Your task to perform on an android device: change text size in settings app Image 0: 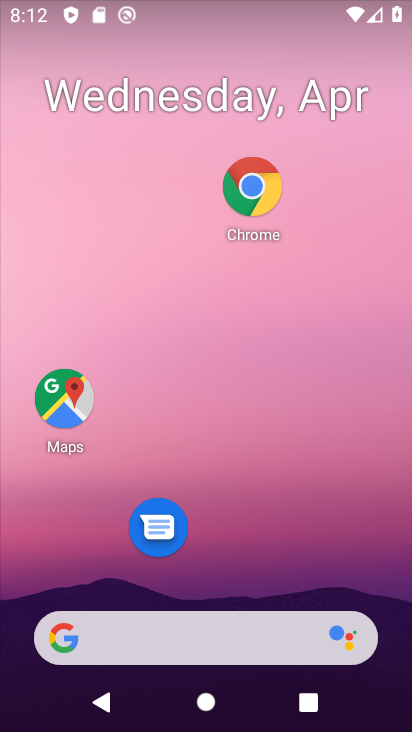
Step 0: drag from (247, 582) to (273, 278)
Your task to perform on an android device: change text size in settings app Image 1: 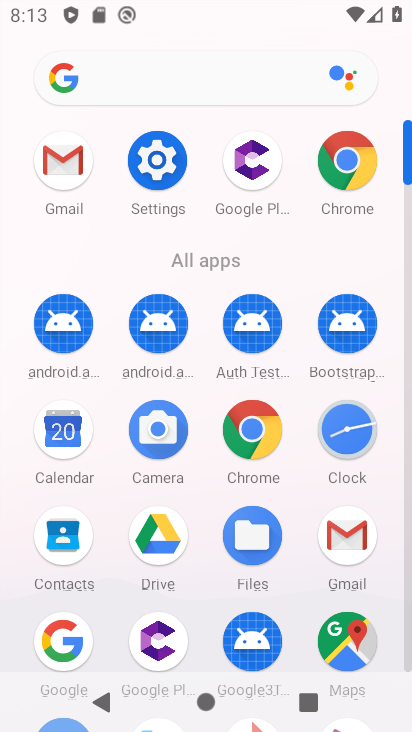
Step 1: click (169, 152)
Your task to perform on an android device: change text size in settings app Image 2: 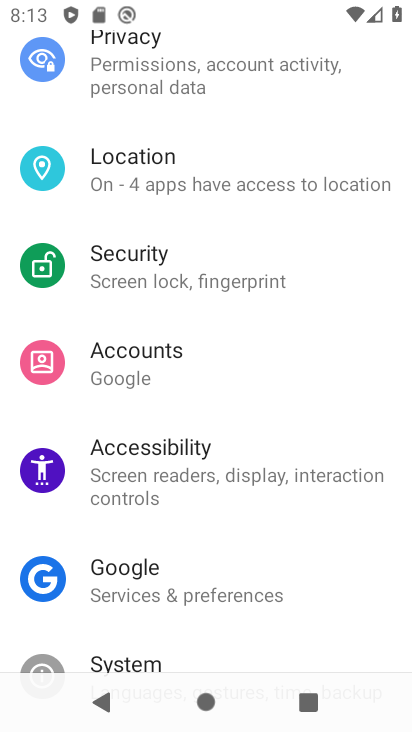
Step 2: drag from (160, 614) to (261, 180)
Your task to perform on an android device: change text size in settings app Image 3: 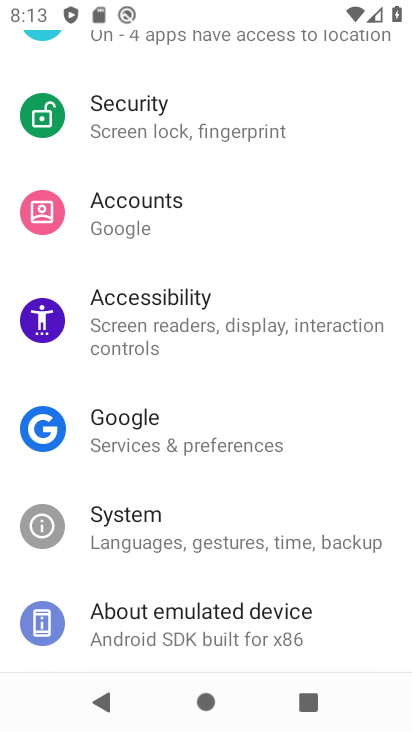
Step 3: click (187, 530)
Your task to perform on an android device: change text size in settings app Image 4: 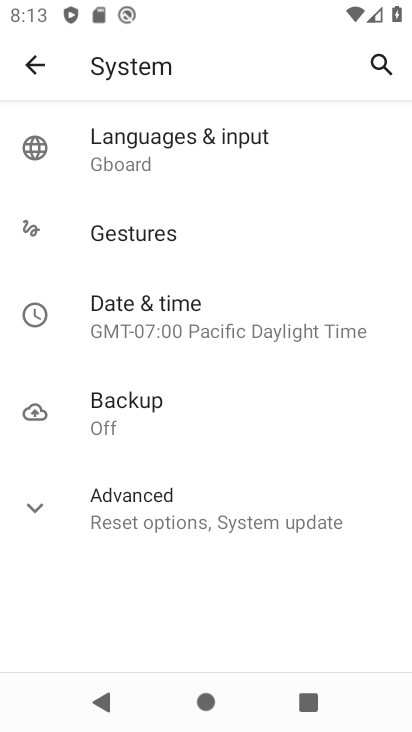
Step 4: press back button
Your task to perform on an android device: change text size in settings app Image 5: 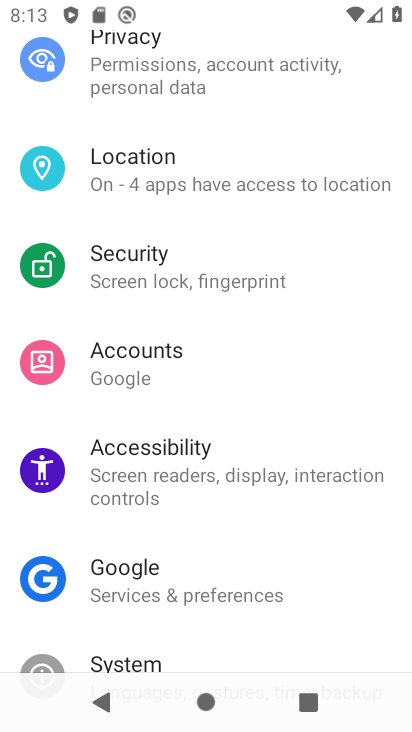
Step 5: click (178, 479)
Your task to perform on an android device: change text size in settings app Image 6: 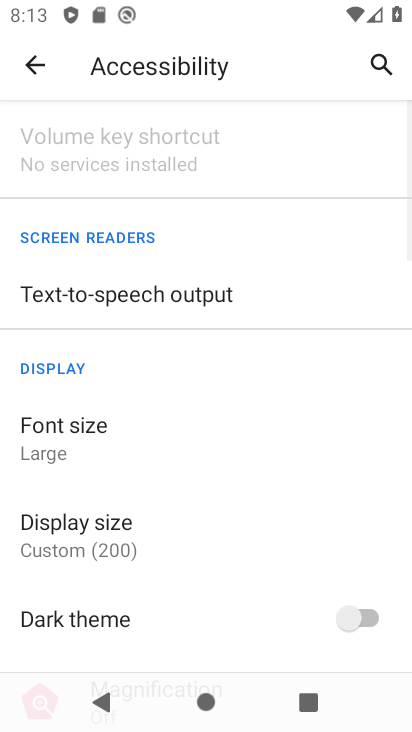
Step 6: click (158, 452)
Your task to perform on an android device: change text size in settings app Image 7: 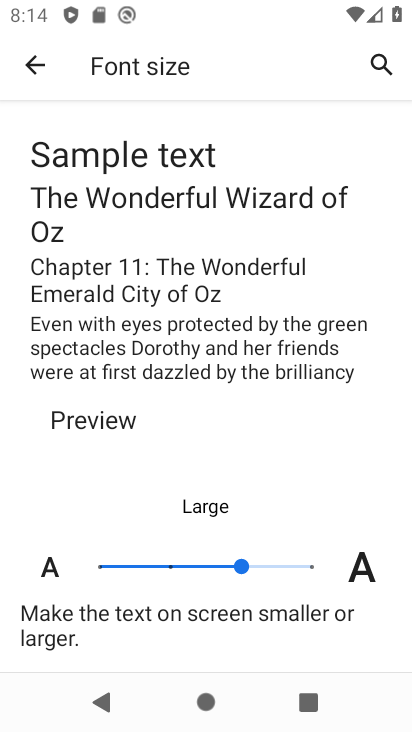
Step 7: click (174, 568)
Your task to perform on an android device: change text size in settings app Image 8: 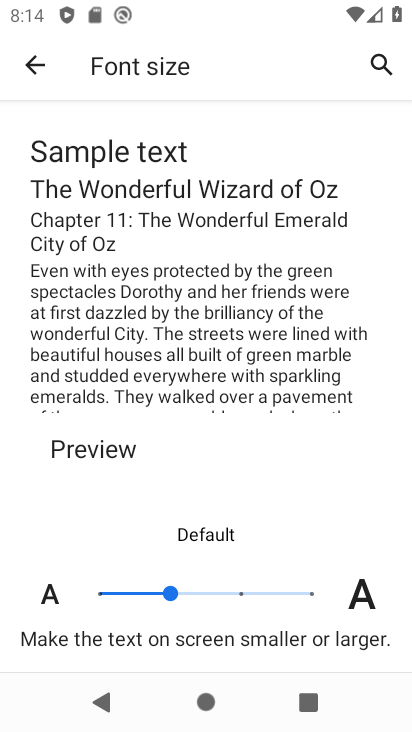
Step 8: task complete